Your task to perform on an android device: Go to display settings Image 0: 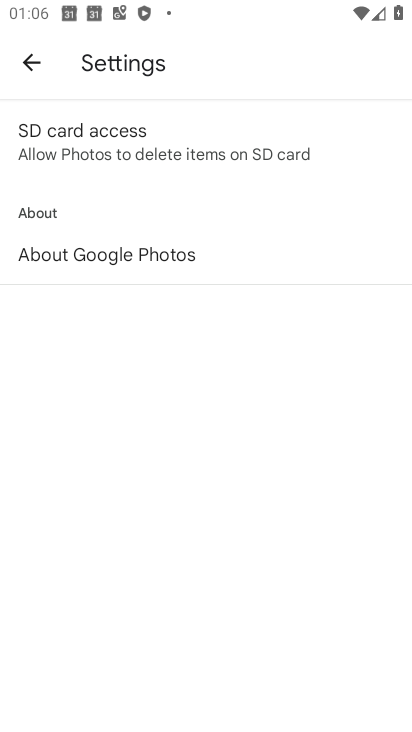
Step 0: press home button
Your task to perform on an android device: Go to display settings Image 1: 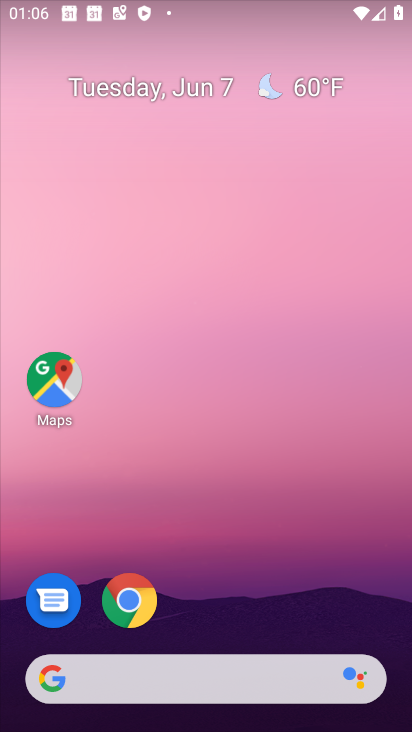
Step 1: drag from (227, 724) to (228, 178)
Your task to perform on an android device: Go to display settings Image 2: 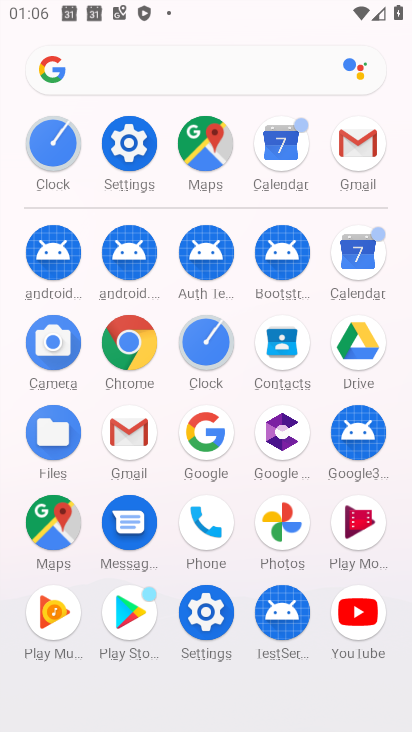
Step 2: click (205, 617)
Your task to perform on an android device: Go to display settings Image 3: 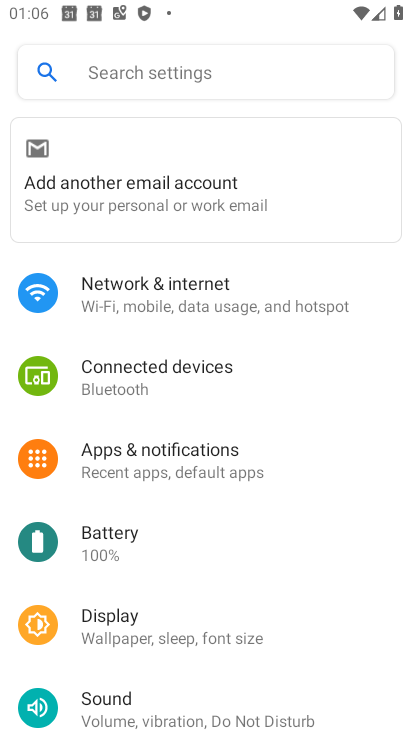
Step 3: click (94, 621)
Your task to perform on an android device: Go to display settings Image 4: 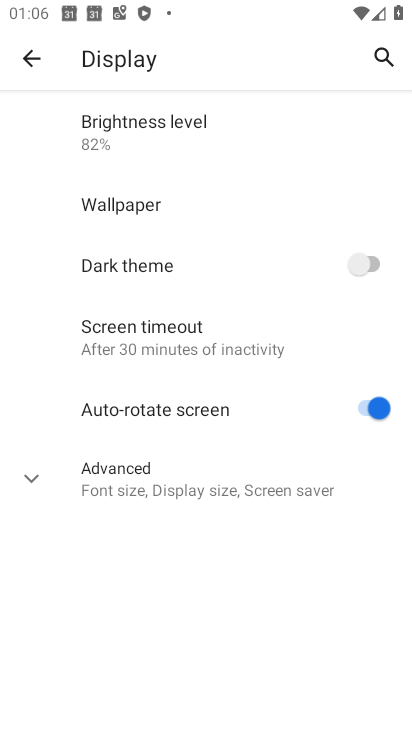
Step 4: task complete